Your task to perform on an android device: turn off smart reply in the gmail app Image 0: 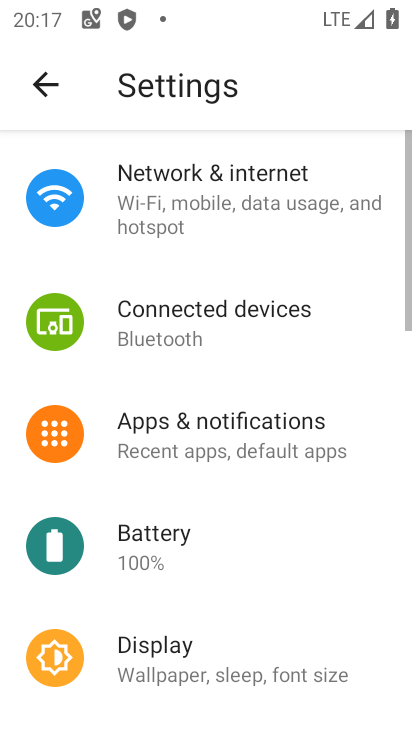
Step 0: press home button
Your task to perform on an android device: turn off smart reply in the gmail app Image 1: 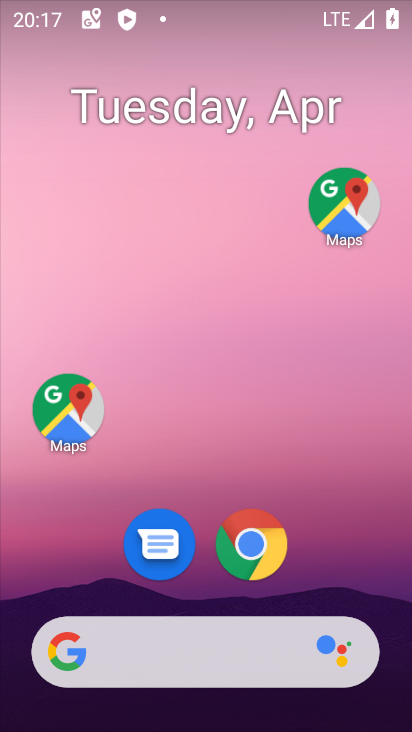
Step 1: drag from (191, 653) to (278, 152)
Your task to perform on an android device: turn off smart reply in the gmail app Image 2: 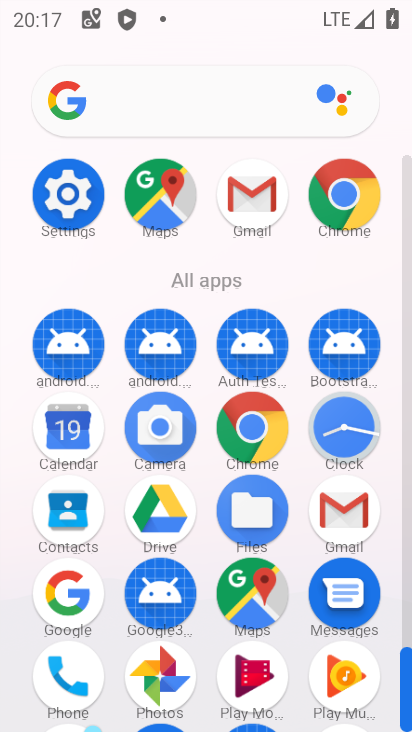
Step 2: click (336, 521)
Your task to perform on an android device: turn off smart reply in the gmail app Image 3: 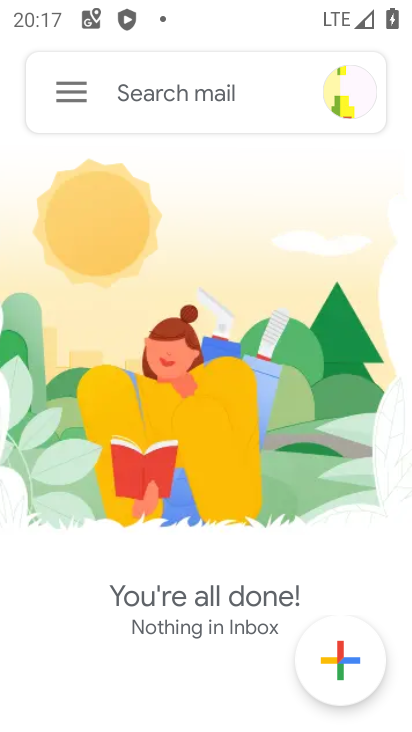
Step 3: click (69, 97)
Your task to perform on an android device: turn off smart reply in the gmail app Image 4: 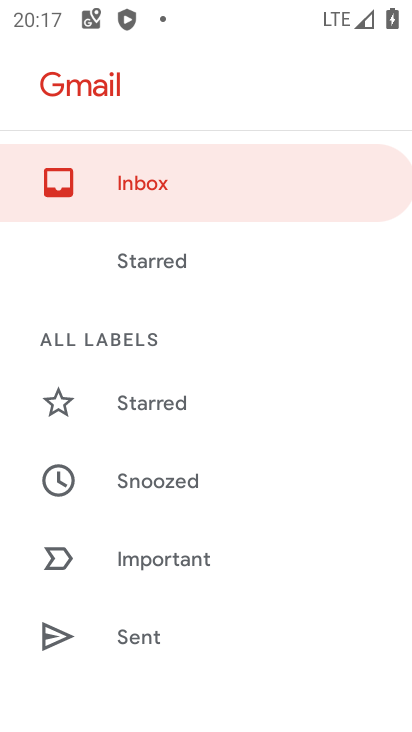
Step 4: drag from (210, 597) to (360, 92)
Your task to perform on an android device: turn off smart reply in the gmail app Image 5: 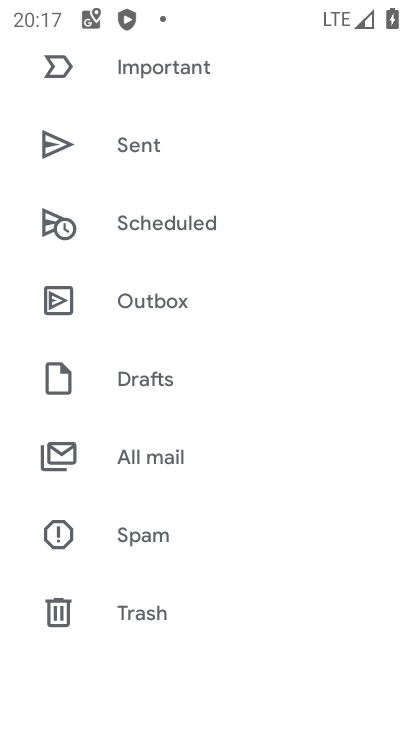
Step 5: drag from (216, 591) to (304, 233)
Your task to perform on an android device: turn off smart reply in the gmail app Image 6: 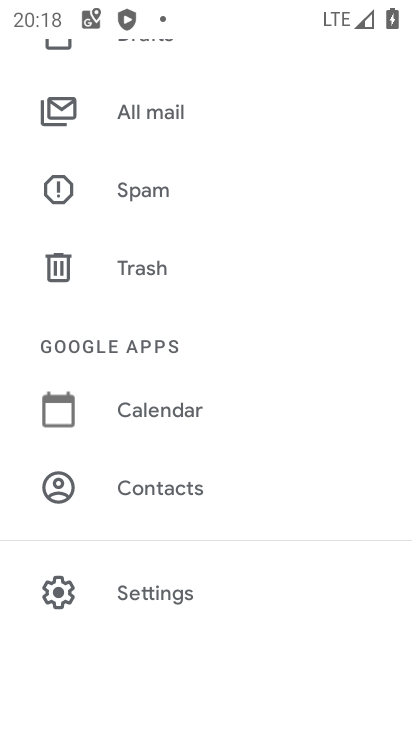
Step 6: click (164, 593)
Your task to perform on an android device: turn off smart reply in the gmail app Image 7: 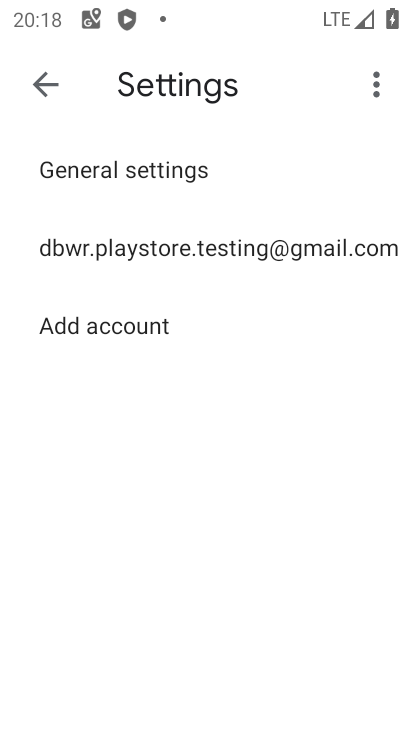
Step 7: click (274, 245)
Your task to perform on an android device: turn off smart reply in the gmail app Image 8: 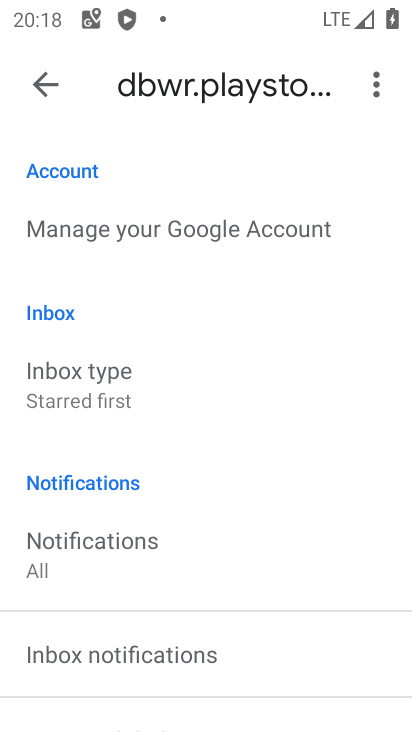
Step 8: drag from (202, 475) to (319, 196)
Your task to perform on an android device: turn off smart reply in the gmail app Image 9: 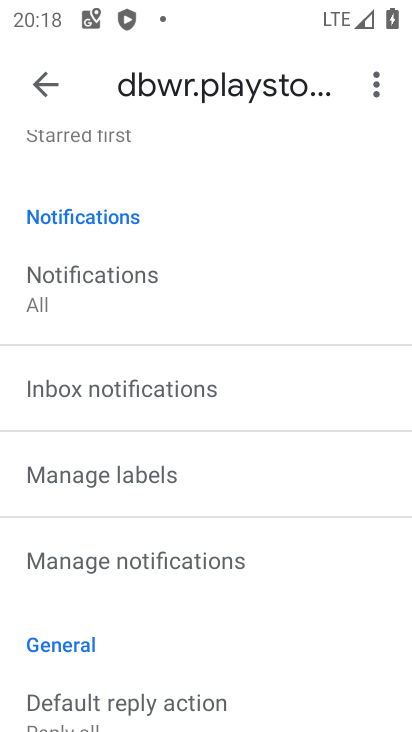
Step 9: drag from (217, 646) to (383, 223)
Your task to perform on an android device: turn off smart reply in the gmail app Image 10: 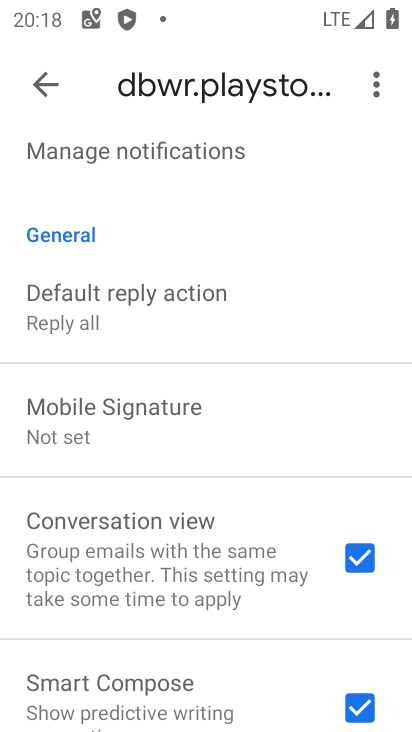
Step 10: drag from (241, 648) to (334, 305)
Your task to perform on an android device: turn off smart reply in the gmail app Image 11: 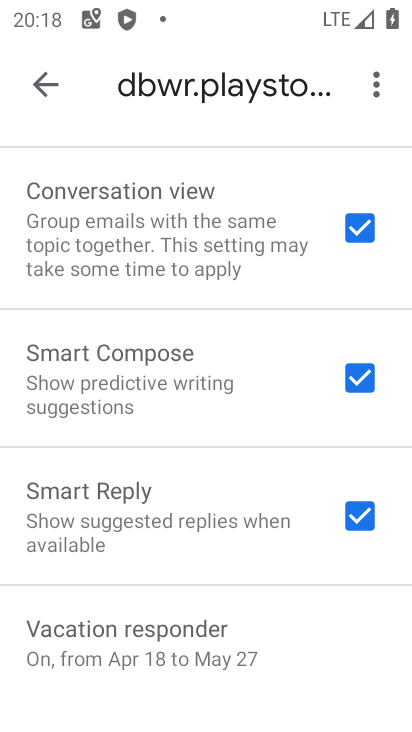
Step 11: click (361, 518)
Your task to perform on an android device: turn off smart reply in the gmail app Image 12: 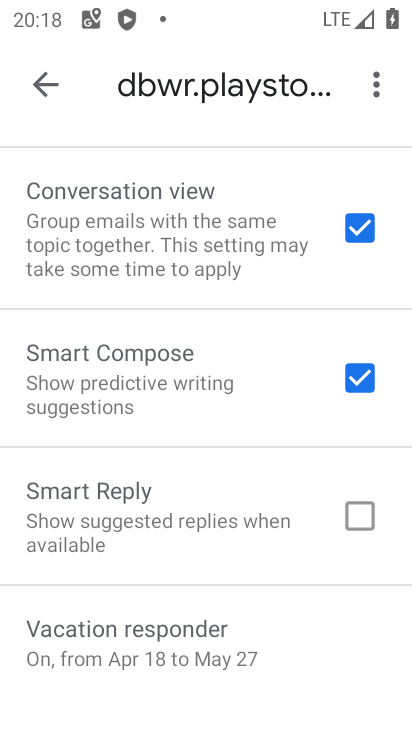
Step 12: task complete